Your task to perform on an android device: Open calendar and show me the third week of next month Image 0: 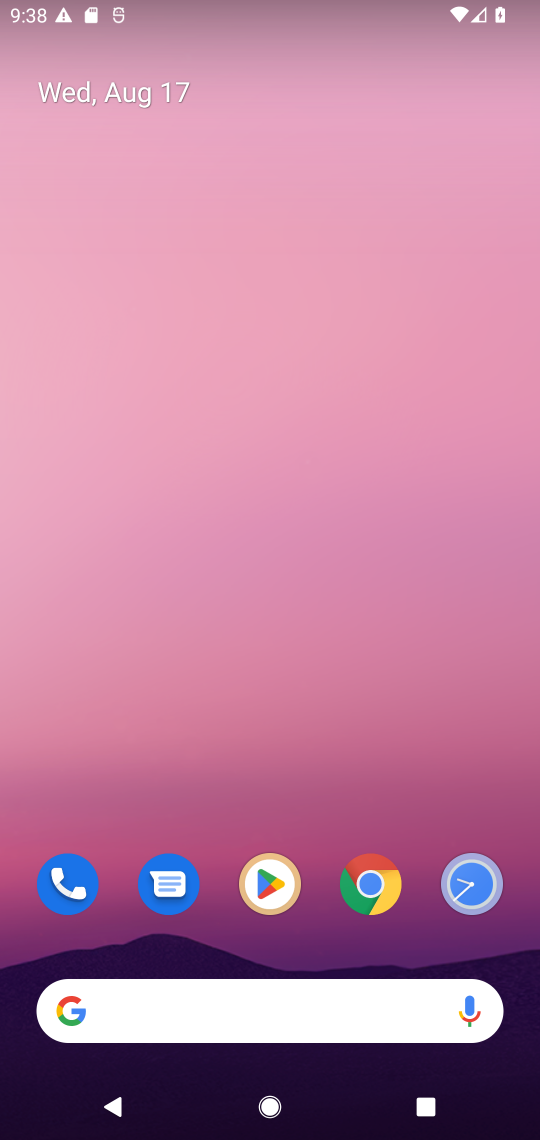
Step 0: click (84, 103)
Your task to perform on an android device: Open calendar and show me the third week of next month Image 1: 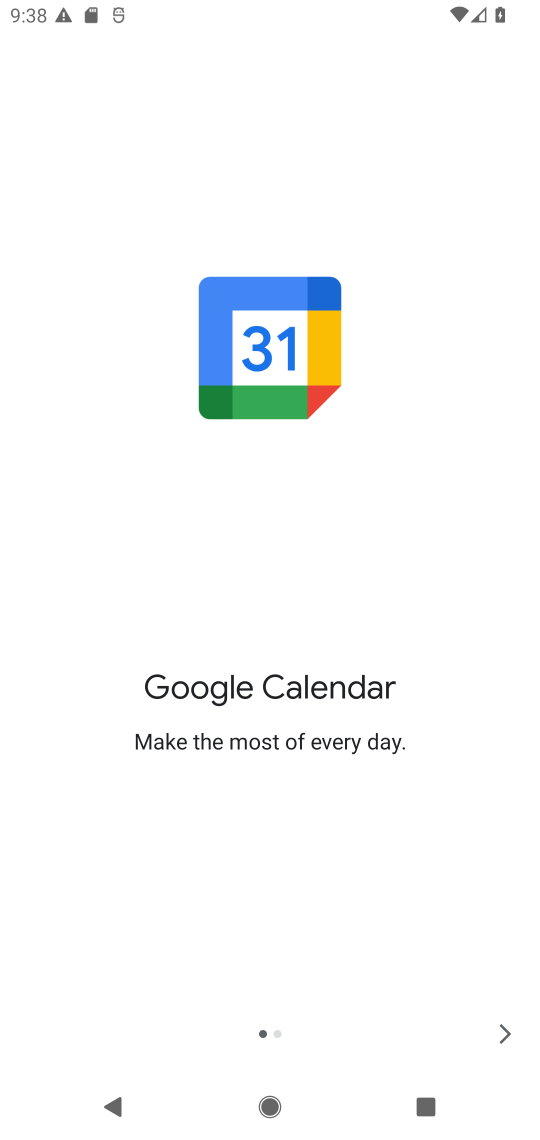
Step 1: click (504, 1044)
Your task to perform on an android device: Open calendar and show me the third week of next month Image 2: 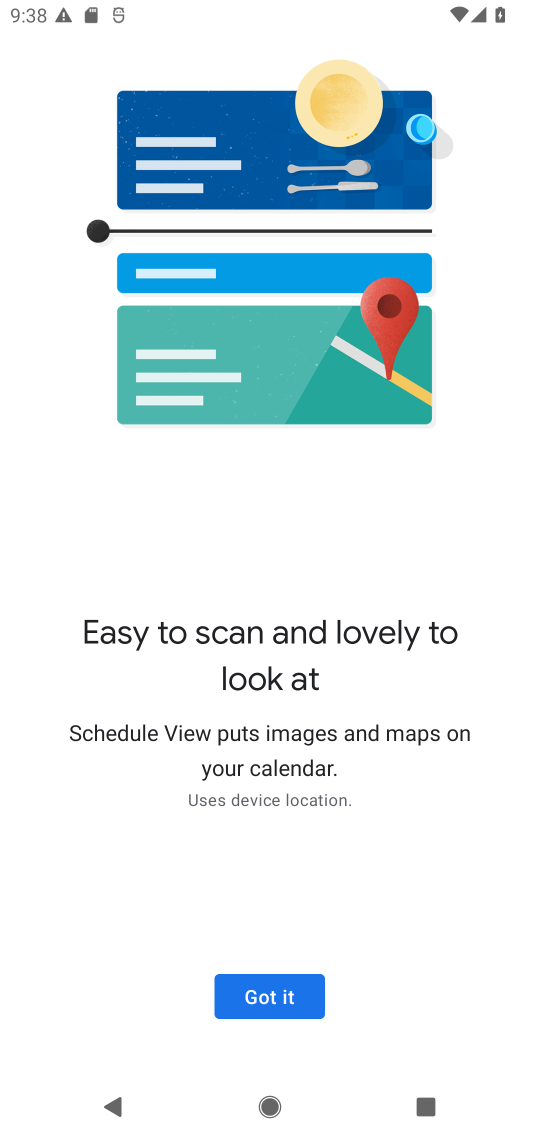
Step 2: click (271, 1010)
Your task to perform on an android device: Open calendar and show me the third week of next month Image 3: 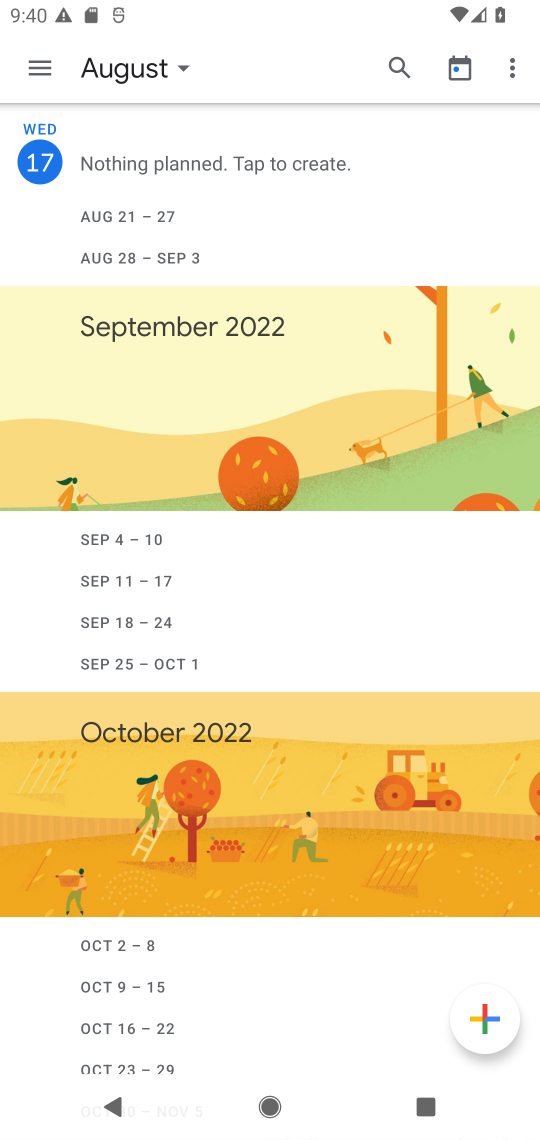
Step 3: click (160, 73)
Your task to perform on an android device: Open calendar and show me the third week of next month Image 4: 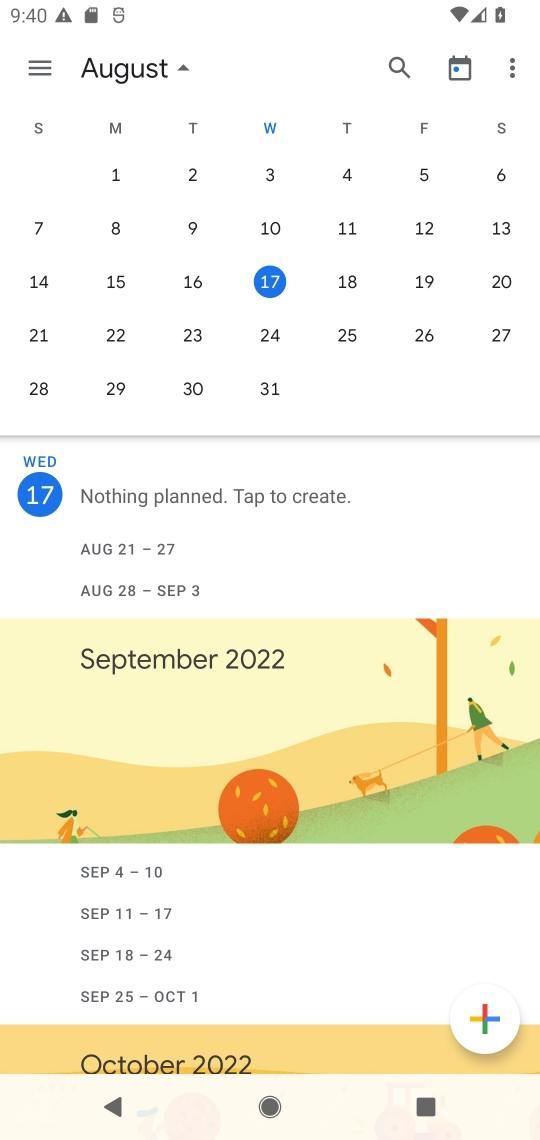
Step 4: drag from (468, 406) to (8, 550)
Your task to perform on an android device: Open calendar and show me the third week of next month Image 5: 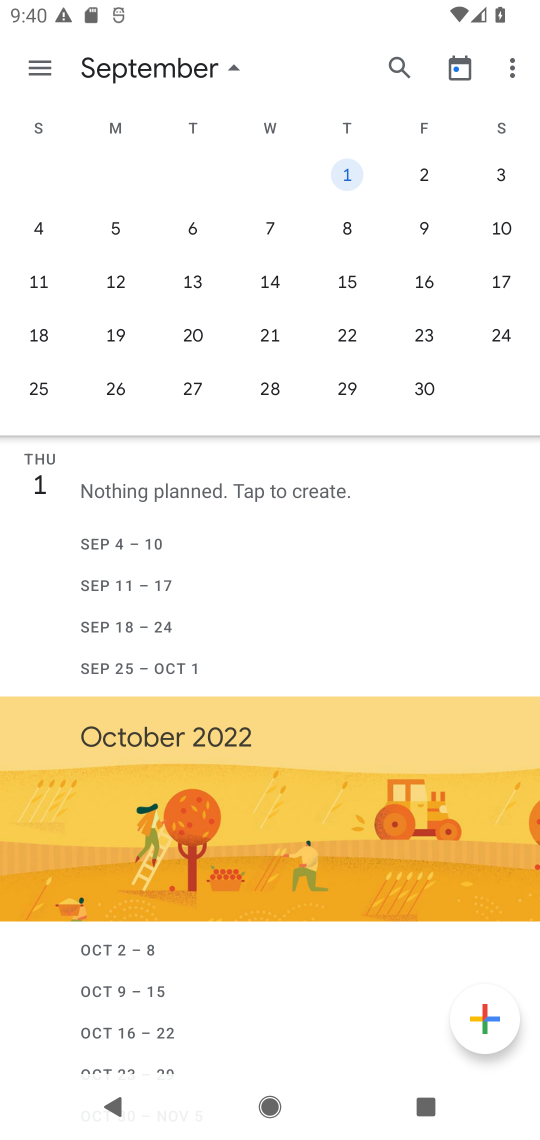
Step 5: click (365, 287)
Your task to perform on an android device: Open calendar and show me the third week of next month Image 6: 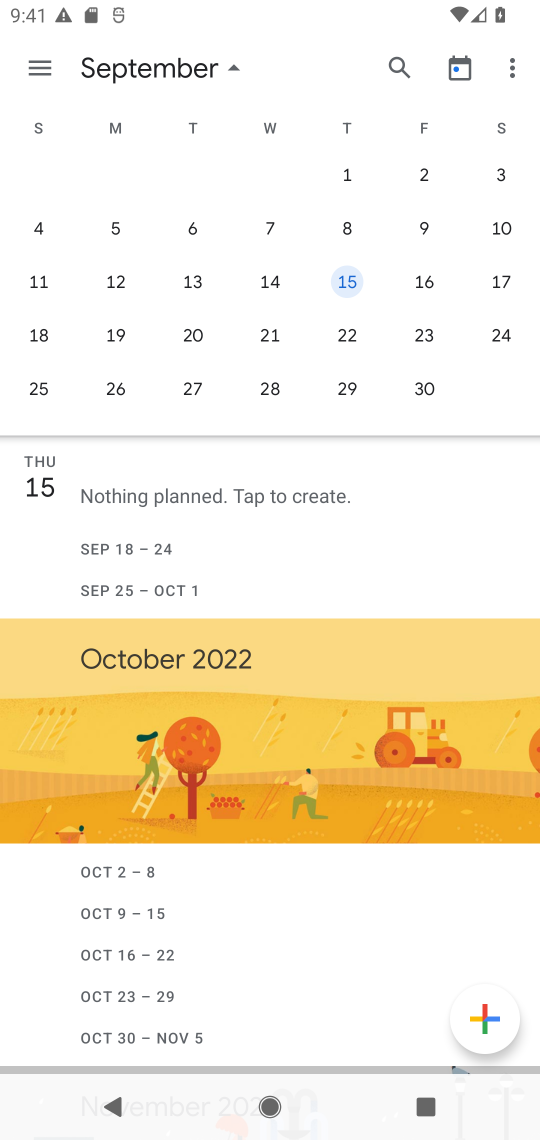
Step 6: task complete